Your task to perform on an android device: turn smart compose on in the gmail app Image 0: 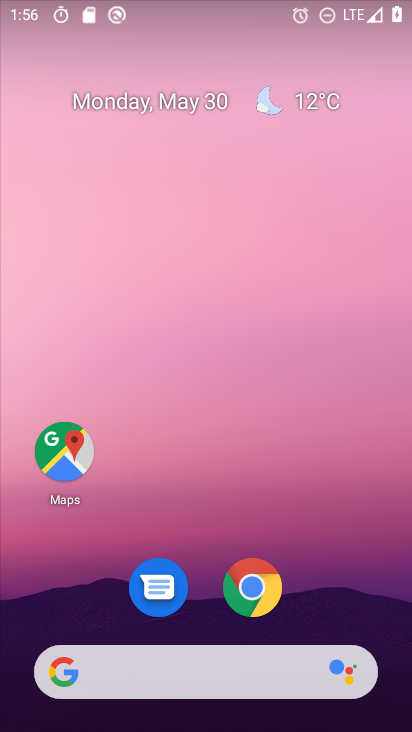
Step 0: drag from (300, 534) to (295, 38)
Your task to perform on an android device: turn smart compose on in the gmail app Image 1: 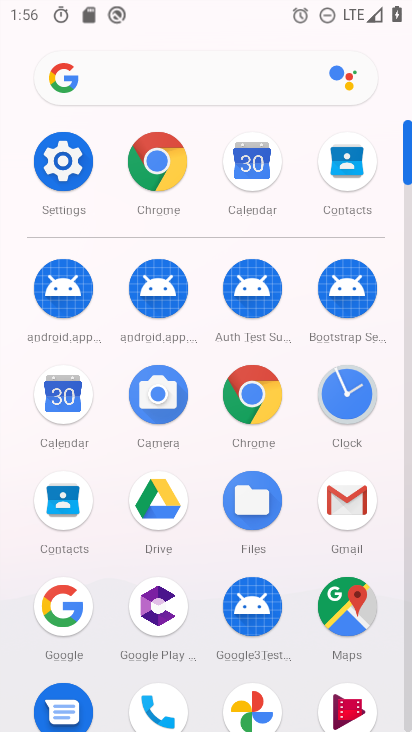
Step 1: click (343, 503)
Your task to perform on an android device: turn smart compose on in the gmail app Image 2: 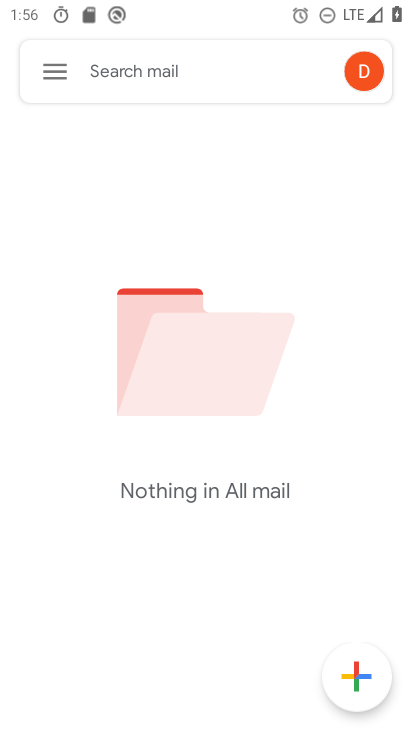
Step 2: click (47, 60)
Your task to perform on an android device: turn smart compose on in the gmail app Image 3: 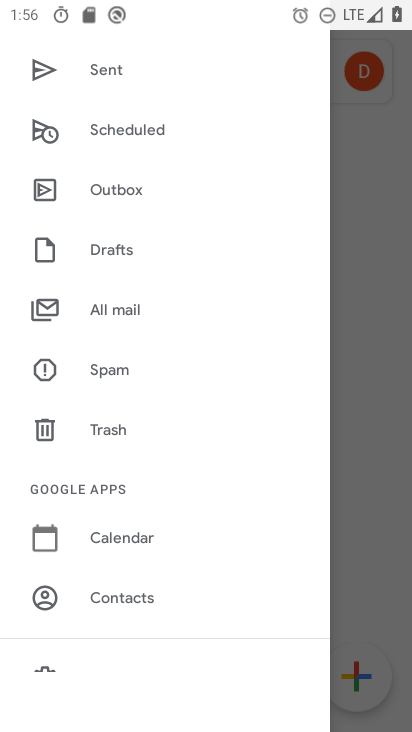
Step 3: click (250, 130)
Your task to perform on an android device: turn smart compose on in the gmail app Image 4: 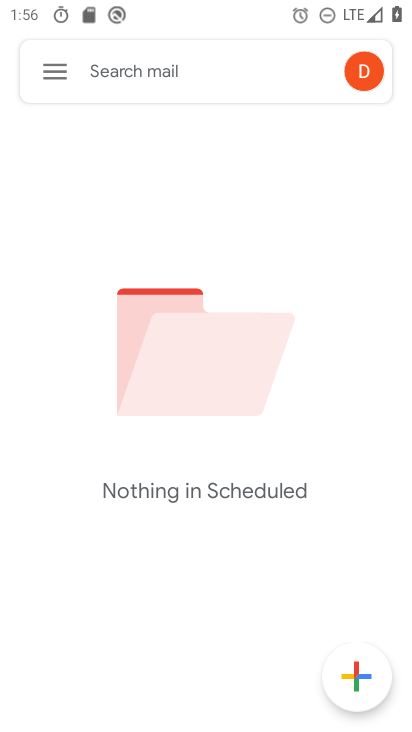
Step 4: click (58, 67)
Your task to perform on an android device: turn smart compose on in the gmail app Image 5: 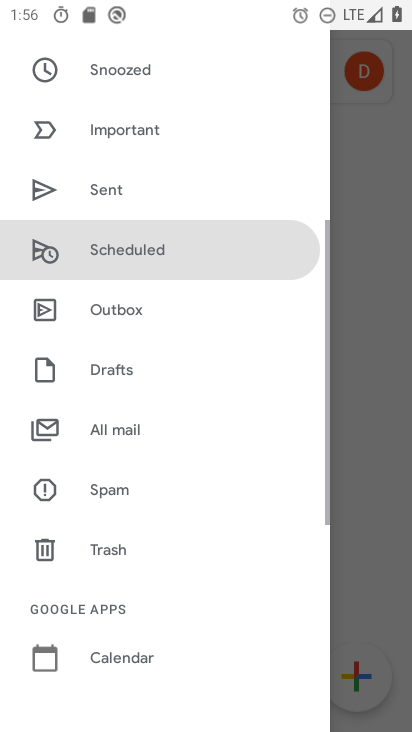
Step 5: drag from (116, 622) to (146, 123)
Your task to perform on an android device: turn smart compose on in the gmail app Image 6: 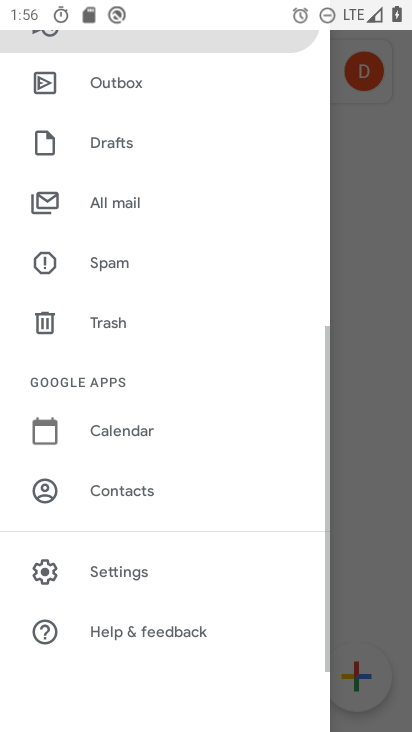
Step 6: click (117, 563)
Your task to perform on an android device: turn smart compose on in the gmail app Image 7: 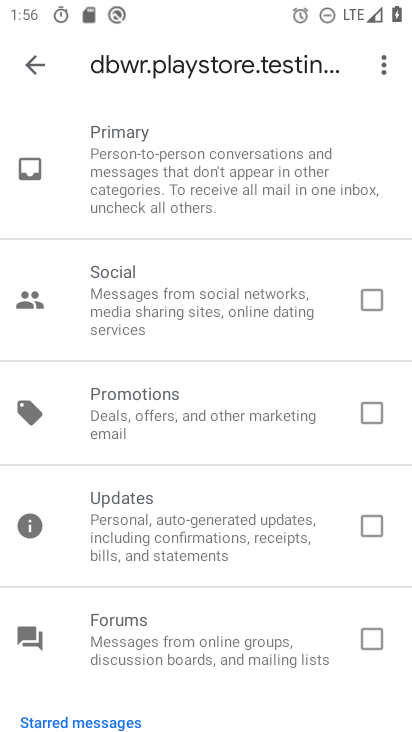
Step 7: drag from (214, 175) to (219, 621)
Your task to perform on an android device: turn smart compose on in the gmail app Image 8: 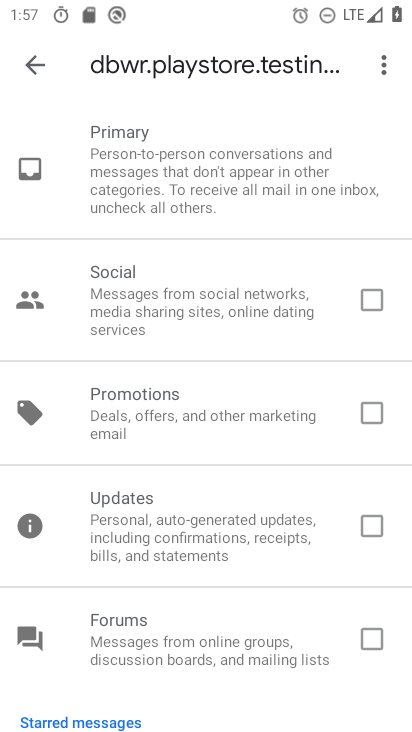
Step 8: drag from (216, 209) to (190, 594)
Your task to perform on an android device: turn smart compose on in the gmail app Image 9: 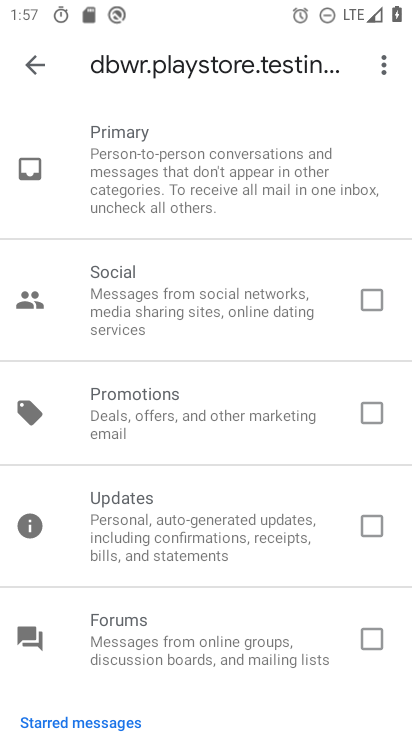
Step 9: click (36, 48)
Your task to perform on an android device: turn smart compose on in the gmail app Image 10: 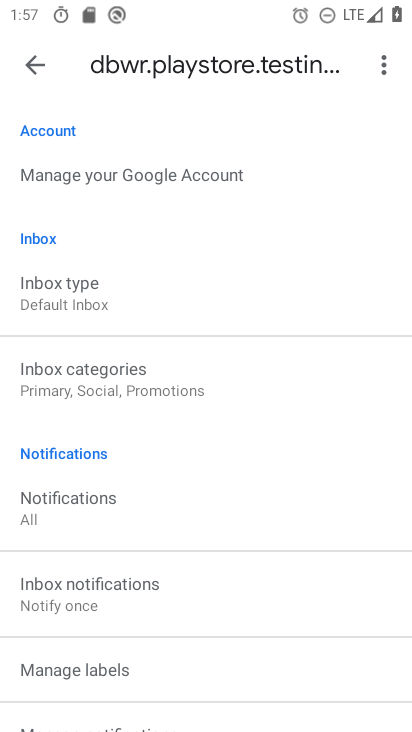
Step 10: task complete